Your task to perform on an android device: toggle location history Image 0: 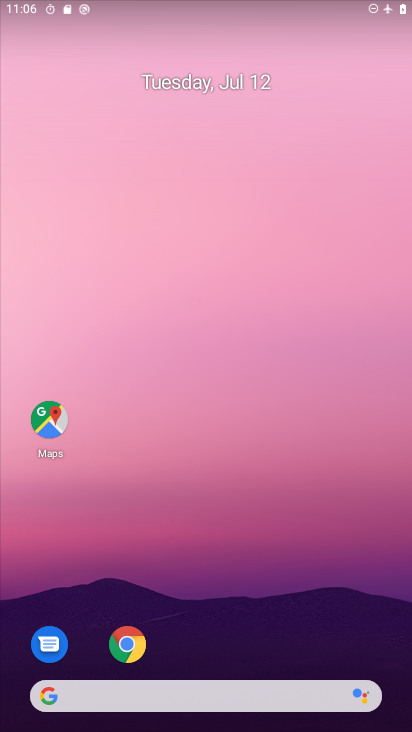
Step 0: drag from (244, 629) to (250, 389)
Your task to perform on an android device: toggle location history Image 1: 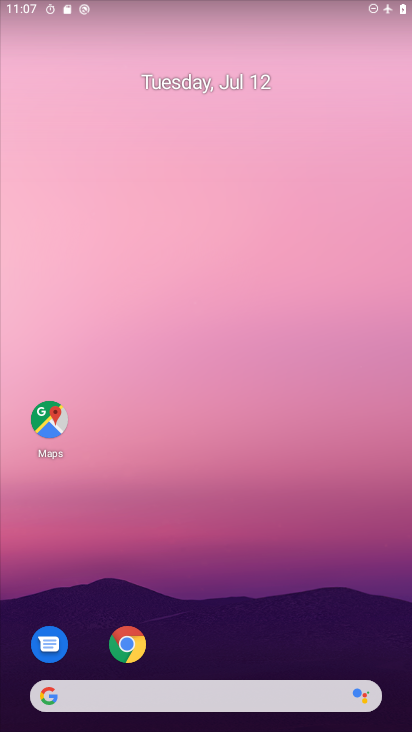
Step 1: drag from (219, 655) to (228, 162)
Your task to perform on an android device: toggle location history Image 2: 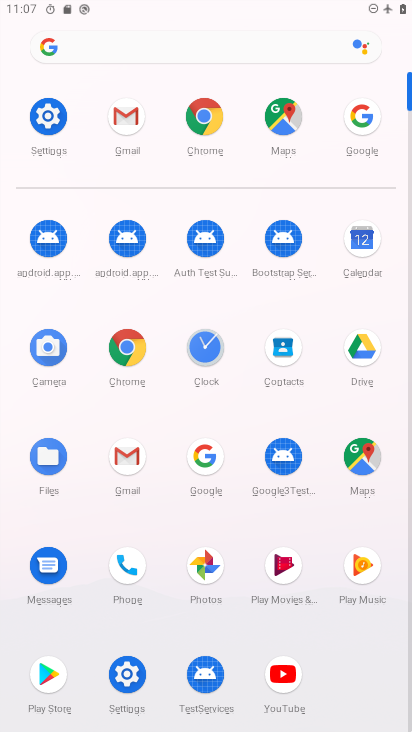
Step 2: click (46, 117)
Your task to perform on an android device: toggle location history Image 3: 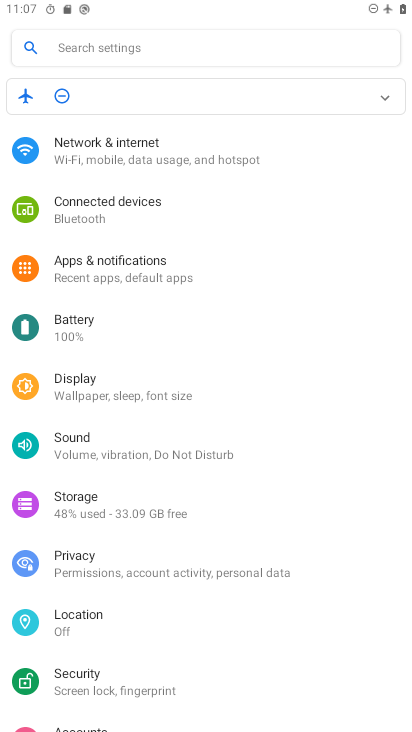
Step 3: click (104, 635)
Your task to perform on an android device: toggle location history Image 4: 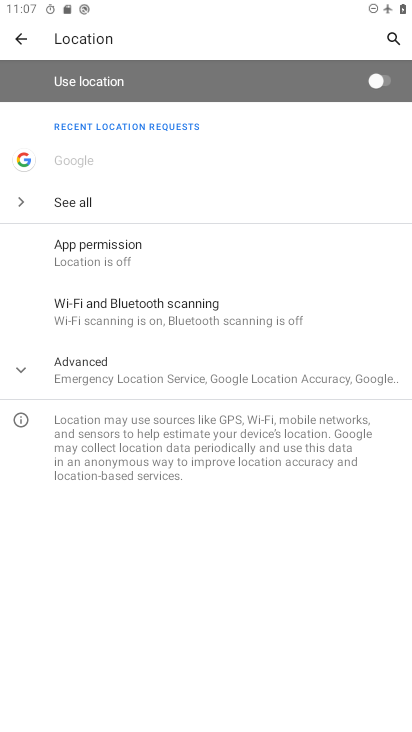
Step 4: click (234, 375)
Your task to perform on an android device: toggle location history Image 5: 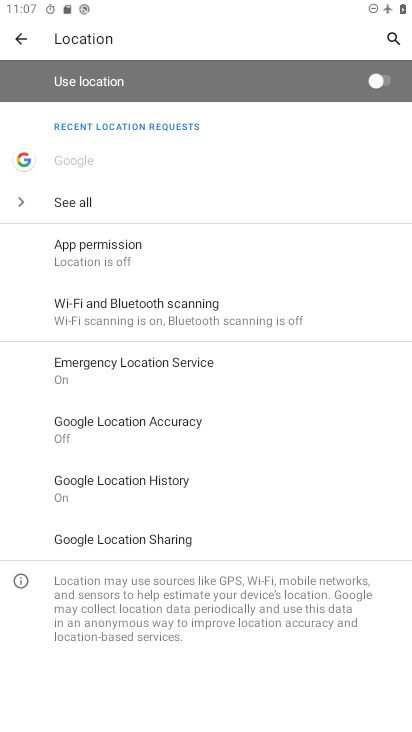
Step 5: click (191, 479)
Your task to perform on an android device: toggle location history Image 6: 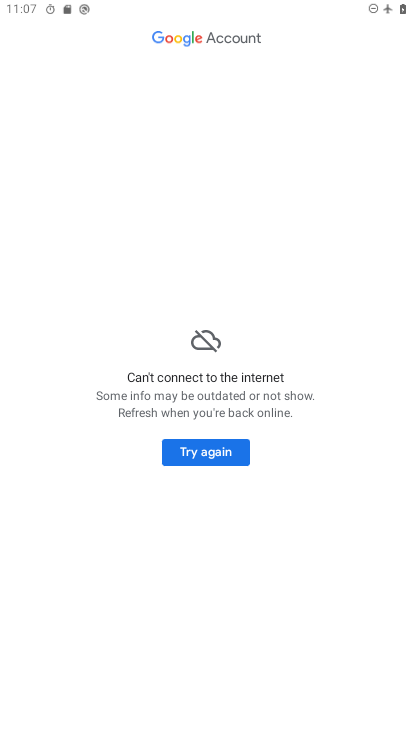
Step 6: task complete